Your task to perform on an android device: check android version Image 0: 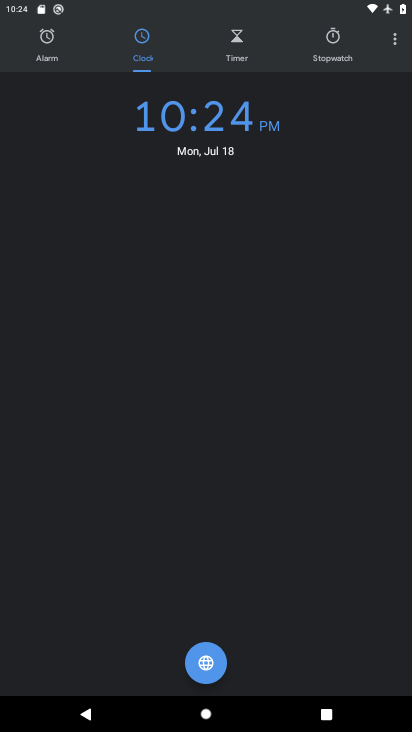
Step 0: press home button
Your task to perform on an android device: check android version Image 1: 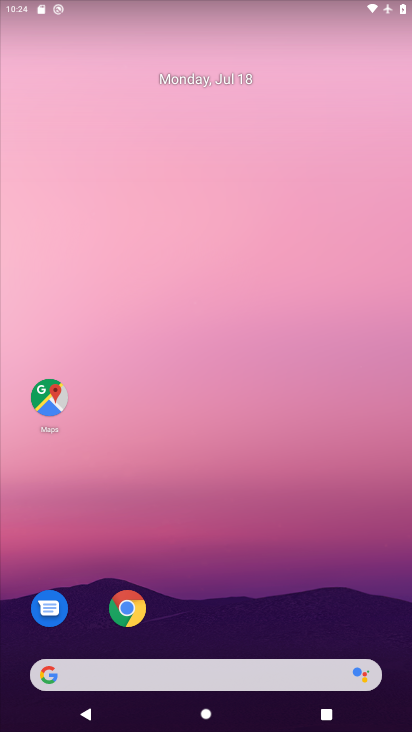
Step 1: drag from (194, 657) to (194, 93)
Your task to perform on an android device: check android version Image 2: 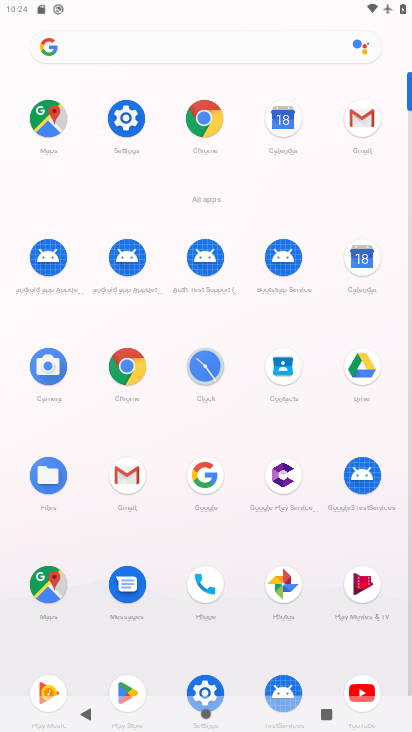
Step 2: click (117, 122)
Your task to perform on an android device: check android version Image 3: 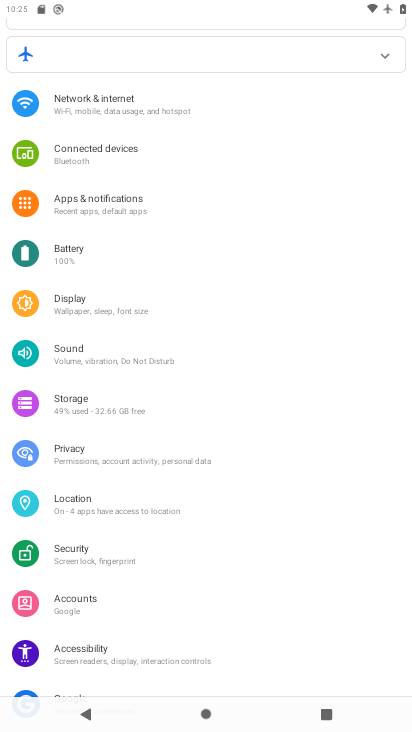
Step 3: drag from (227, 557) to (211, 102)
Your task to perform on an android device: check android version Image 4: 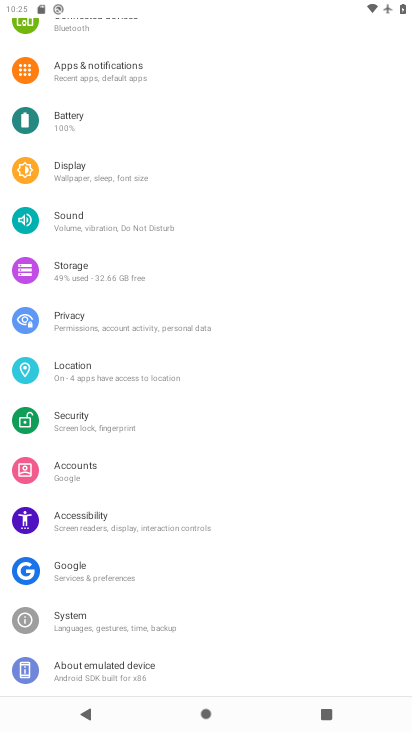
Step 4: click (109, 668)
Your task to perform on an android device: check android version Image 5: 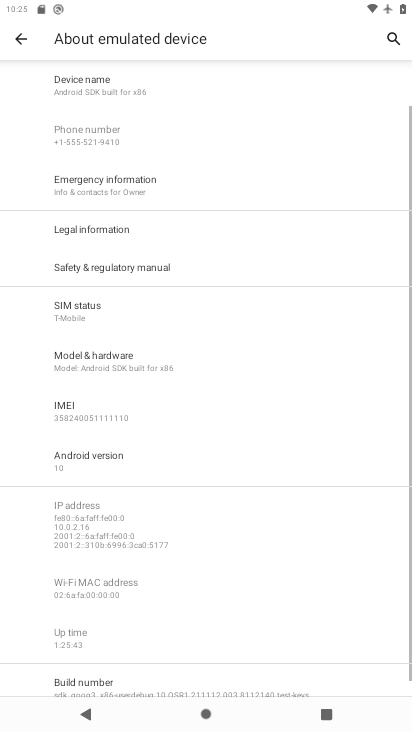
Step 5: drag from (106, 662) to (91, 161)
Your task to perform on an android device: check android version Image 6: 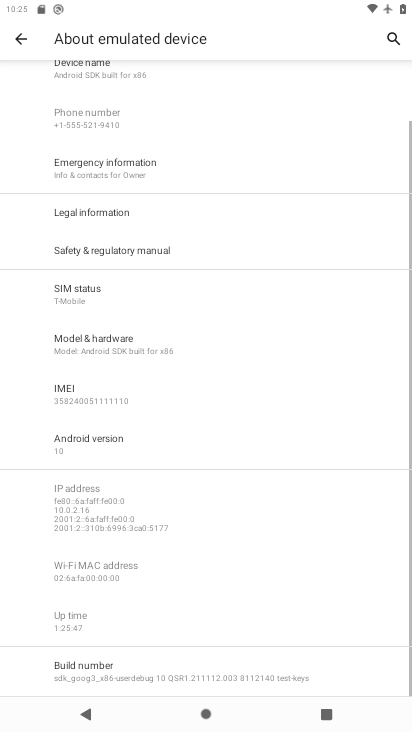
Step 6: drag from (81, 186) to (70, 462)
Your task to perform on an android device: check android version Image 7: 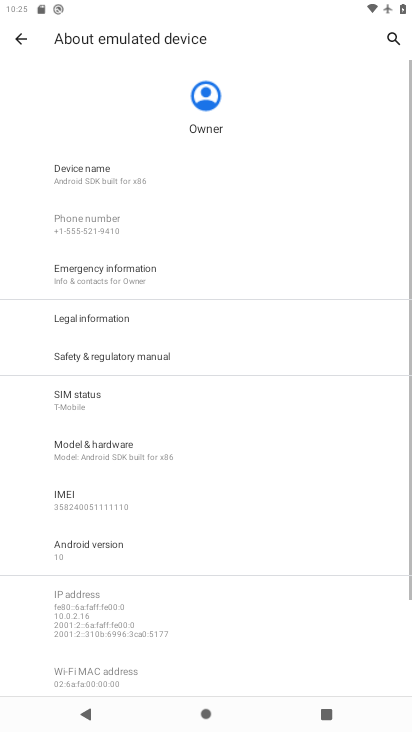
Step 7: click (86, 552)
Your task to perform on an android device: check android version Image 8: 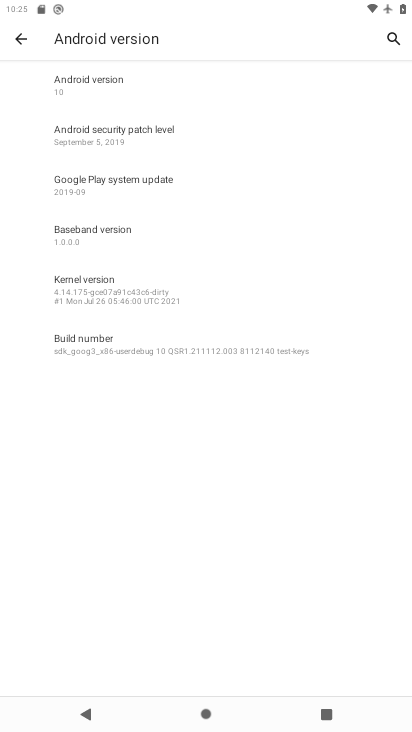
Step 8: task complete